Your task to perform on an android device: turn on notifications settings in the gmail app Image 0: 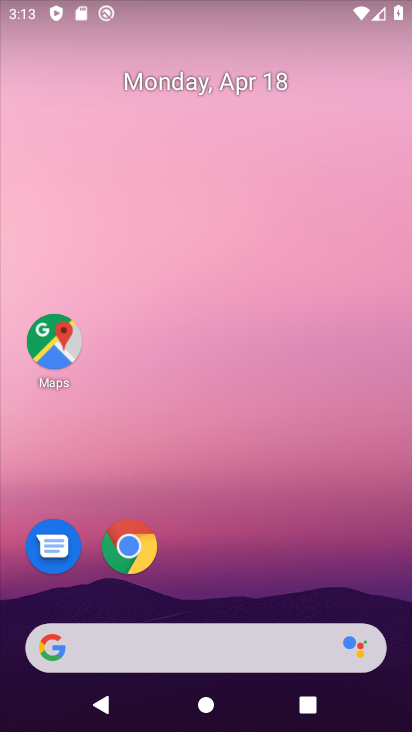
Step 0: drag from (316, 531) to (339, 17)
Your task to perform on an android device: turn on notifications settings in the gmail app Image 1: 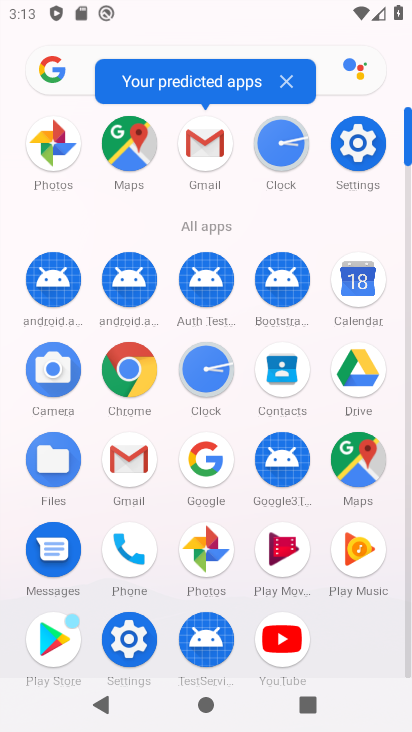
Step 1: click (136, 455)
Your task to perform on an android device: turn on notifications settings in the gmail app Image 2: 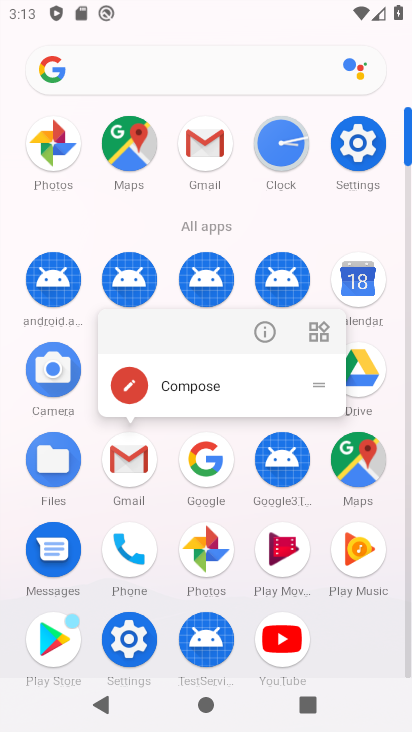
Step 2: click (122, 471)
Your task to perform on an android device: turn on notifications settings in the gmail app Image 3: 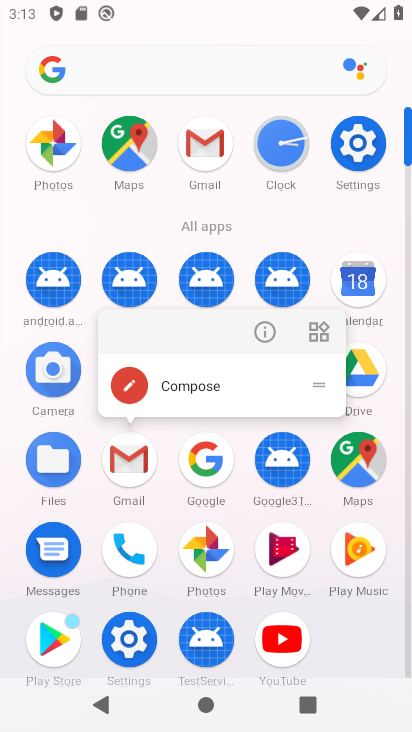
Step 3: click (122, 471)
Your task to perform on an android device: turn on notifications settings in the gmail app Image 4: 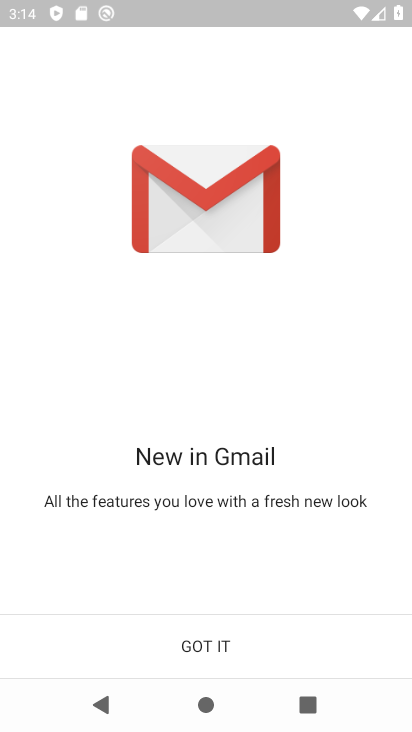
Step 4: click (198, 656)
Your task to perform on an android device: turn on notifications settings in the gmail app Image 5: 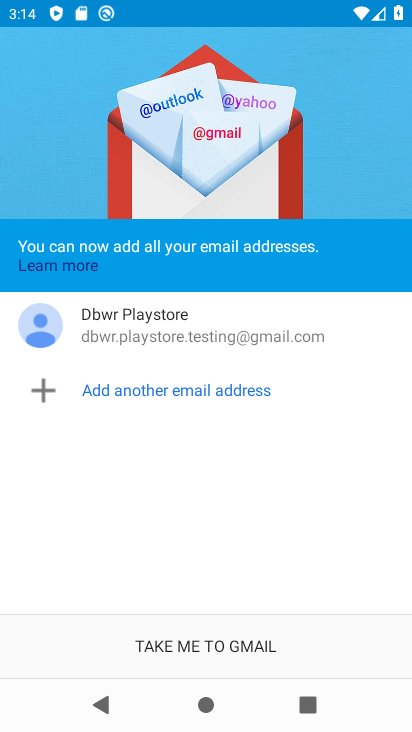
Step 5: click (201, 657)
Your task to perform on an android device: turn on notifications settings in the gmail app Image 6: 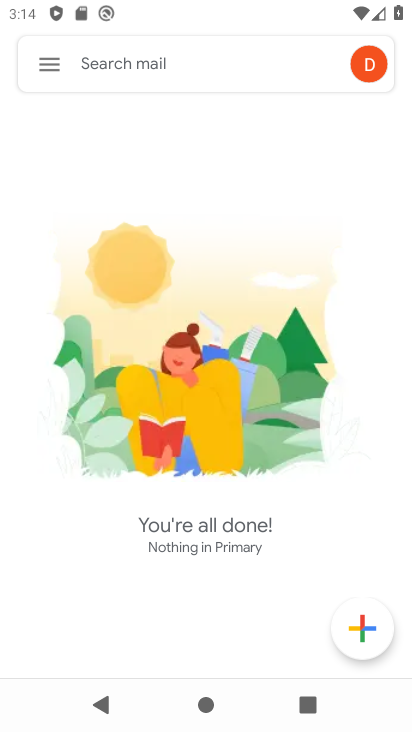
Step 6: click (53, 57)
Your task to perform on an android device: turn on notifications settings in the gmail app Image 7: 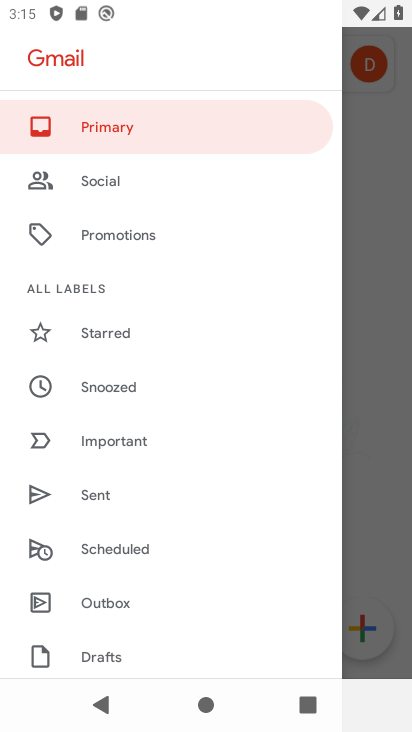
Step 7: drag from (131, 606) to (145, 172)
Your task to perform on an android device: turn on notifications settings in the gmail app Image 8: 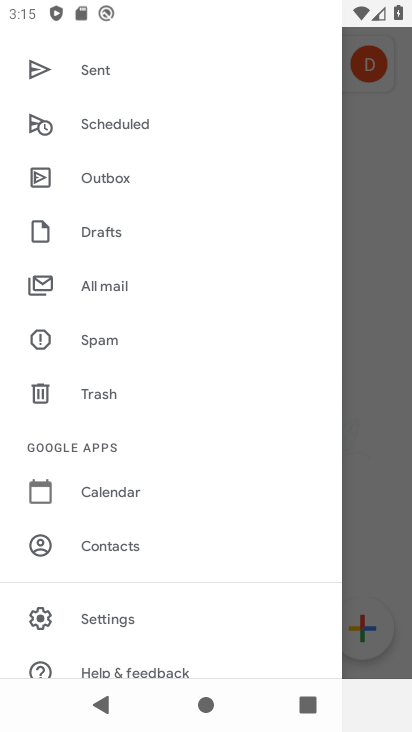
Step 8: click (110, 618)
Your task to perform on an android device: turn on notifications settings in the gmail app Image 9: 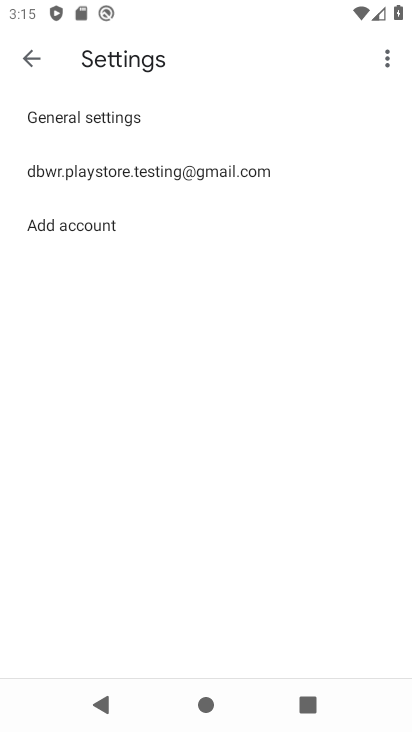
Step 9: click (183, 163)
Your task to perform on an android device: turn on notifications settings in the gmail app Image 10: 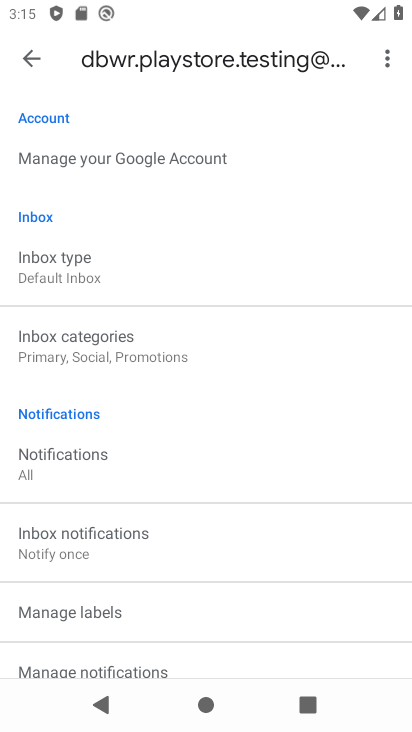
Step 10: drag from (196, 497) to (234, 272)
Your task to perform on an android device: turn on notifications settings in the gmail app Image 11: 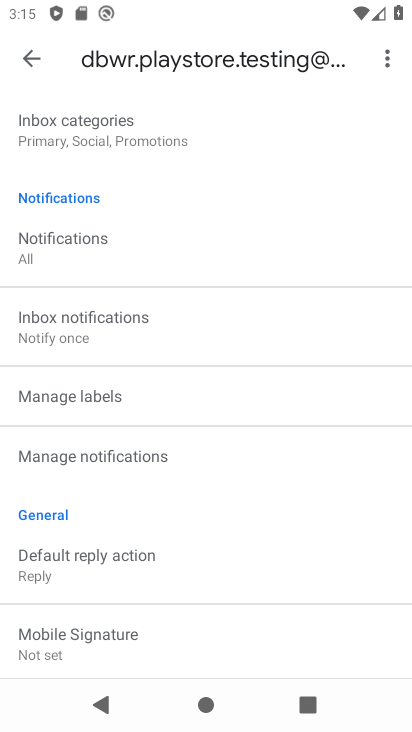
Step 11: click (115, 462)
Your task to perform on an android device: turn on notifications settings in the gmail app Image 12: 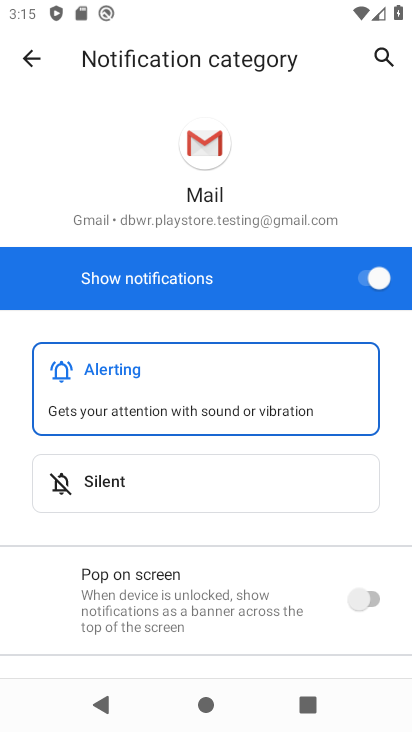
Step 12: task complete